Your task to perform on an android device: toggle wifi Image 0: 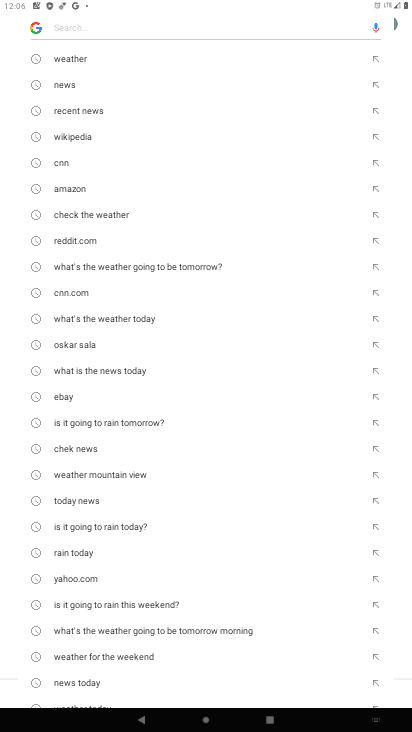
Step 0: drag from (317, 609) to (282, 198)
Your task to perform on an android device: toggle wifi Image 1: 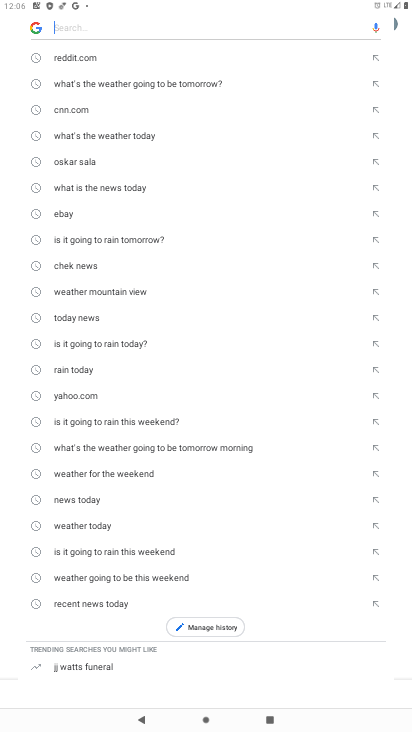
Step 1: press home button
Your task to perform on an android device: toggle wifi Image 2: 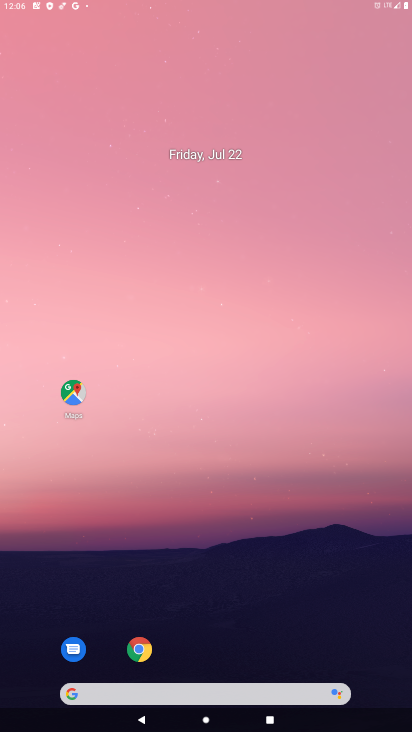
Step 2: drag from (216, 587) to (176, 109)
Your task to perform on an android device: toggle wifi Image 3: 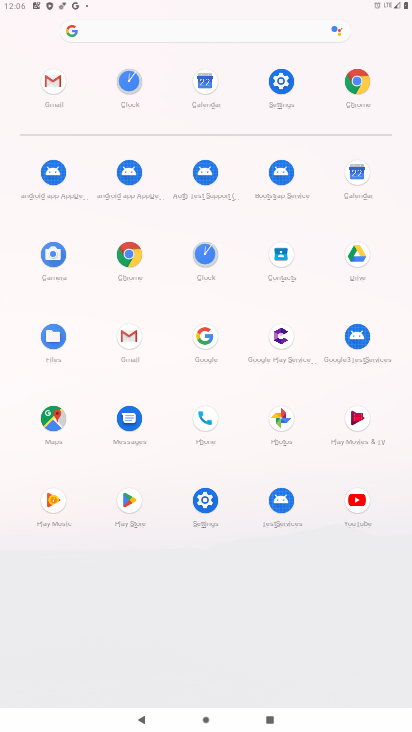
Step 3: click (277, 72)
Your task to perform on an android device: toggle wifi Image 4: 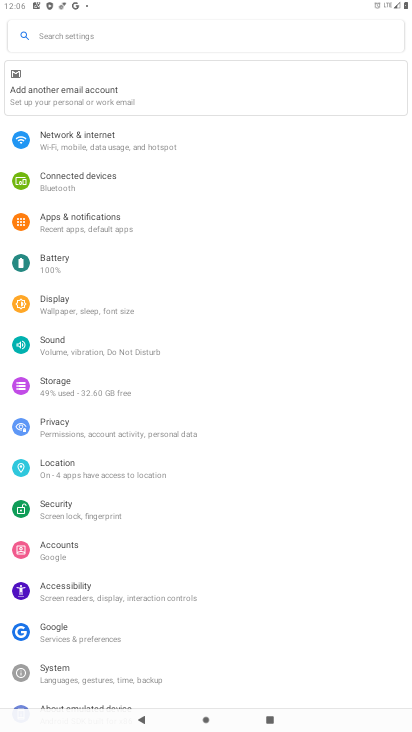
Step 4: click (114, 147)
Your task to perform on an android device: toggle wifi Image 5: 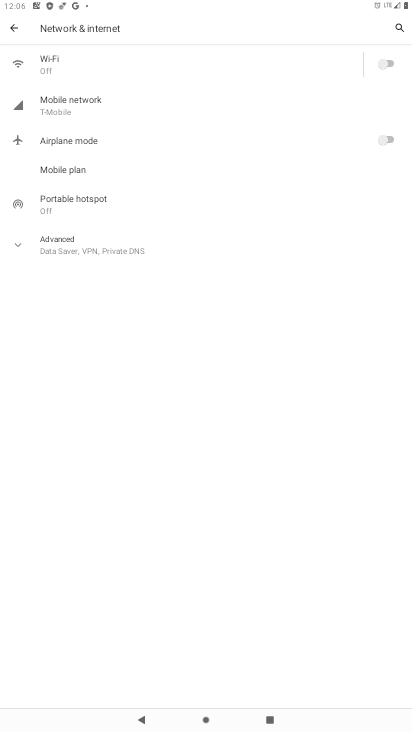
Step 5: click (395, 59)
Your task to perform on an android device: toggle wifi Image 6: 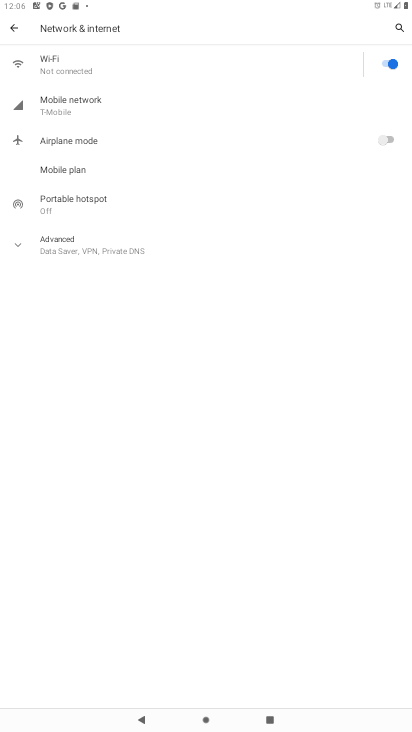
Step 6: task complete